Your task to perform on an android device: Open Chrome and go to settings Image 0: 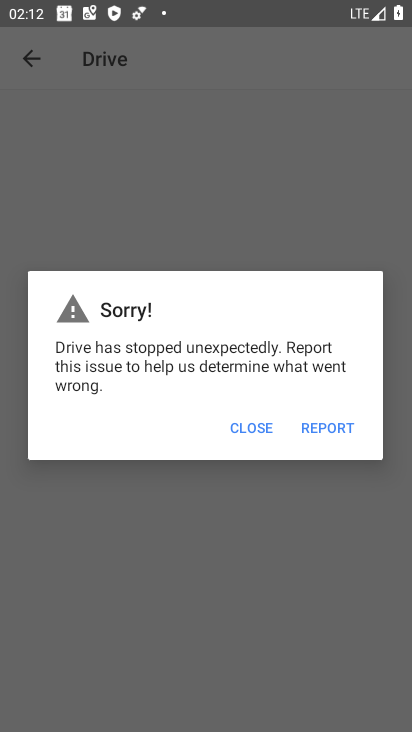
Step 0: press home button
Your task to perform on an android device: Open Chrome and go to settings Image 1: 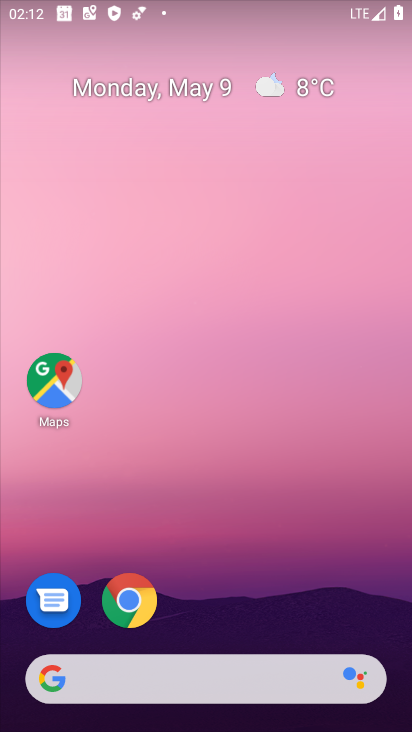
Step 1: drag from (200, 618) to (196, 135)
Your task to perform on an android device: Open Chrome and go to settings Image 2: 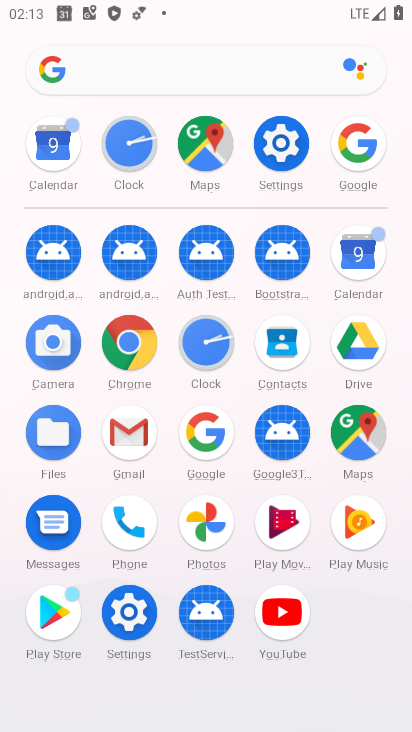
Step 2: click (134, 340)
Your task to perform on an android device: Open Chrome and go to settings Image 3: 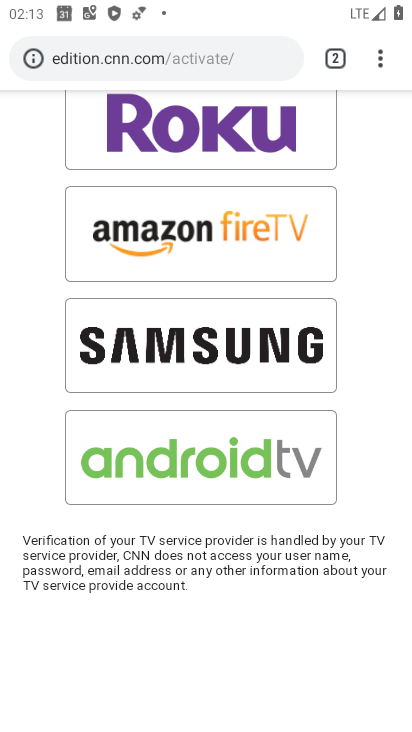
Step 3: click (385, 56)
Your task to perform on an android device: Open Chrome and go to settings Image 4: 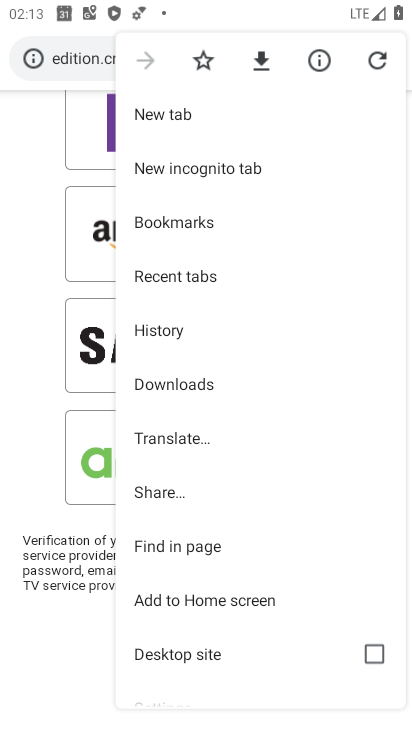
Step 4: drag from (226, 622) to (224, 154)
Your task to perform on an android device: Open Chrome and go to settings Image 5: 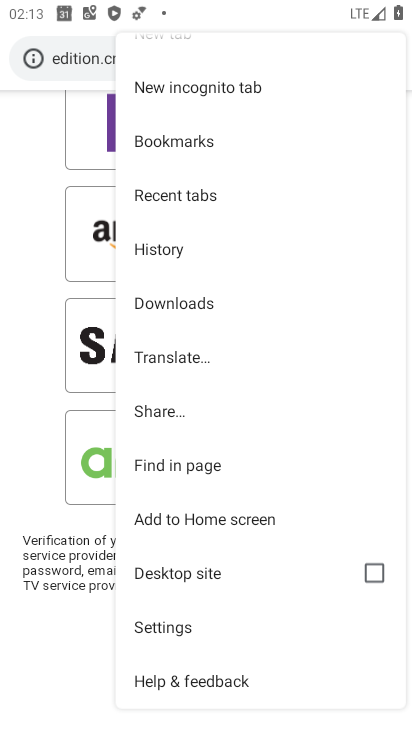
Step 5: click (202, 627)
Your task to perform on an android device: Open Chrome and go to settings Image 6: 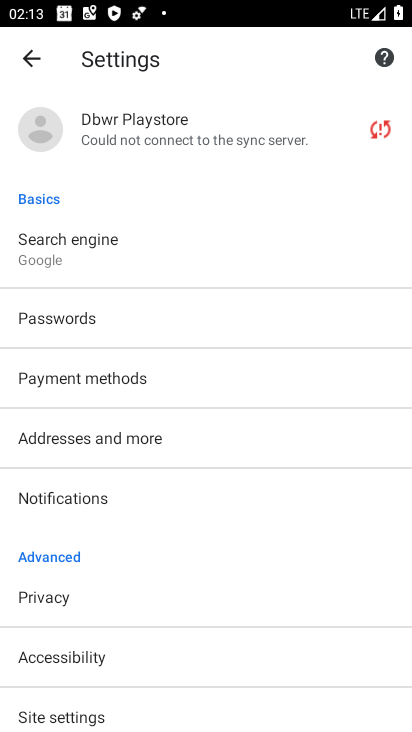
Step 6: task complete